Your task to perform on an android device: turn on javascript in the chrome app Image 0: 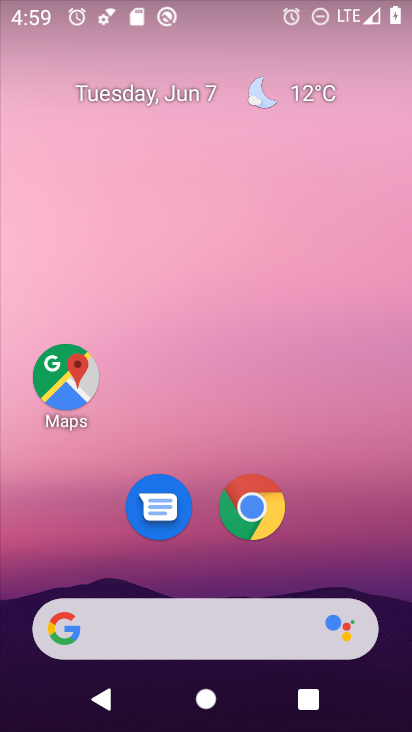
Step 0: drag from (389, 552) to (265, 10)
Your task to perform on an android device: turn on javascript in the chrome app Image 1: 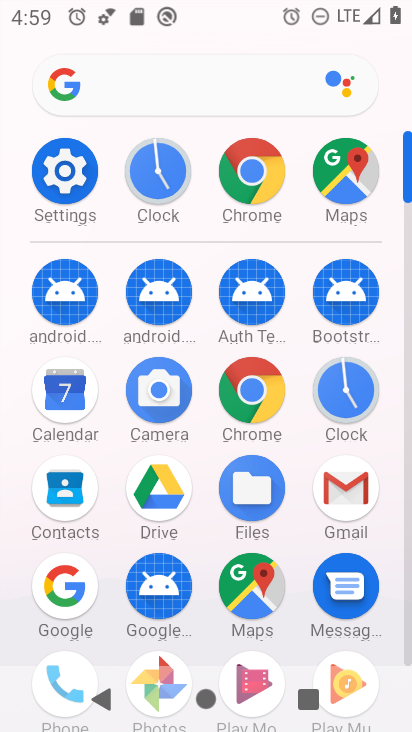
Step 1: click (246, 380)
Your task to perform on an android device: turn on javascript in the chrome app Image 2: 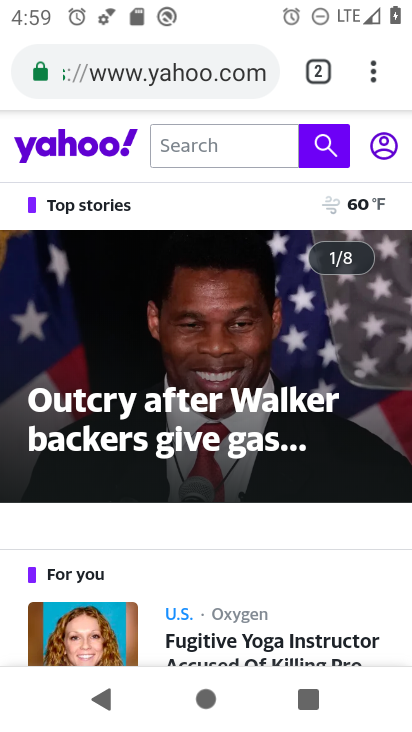
Step 2: drag from (369, 64) to (194, 497)
Your task to perform on an android device: turn on javascript in the chrome app Image 3: 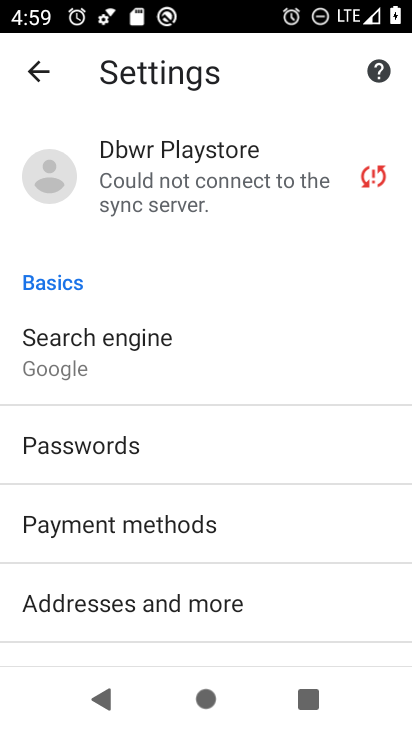
Step 3: drag from (268, 512) to (262, 194)
Your task to perform on an android device: turn on javascript in the chrome app Image 4: 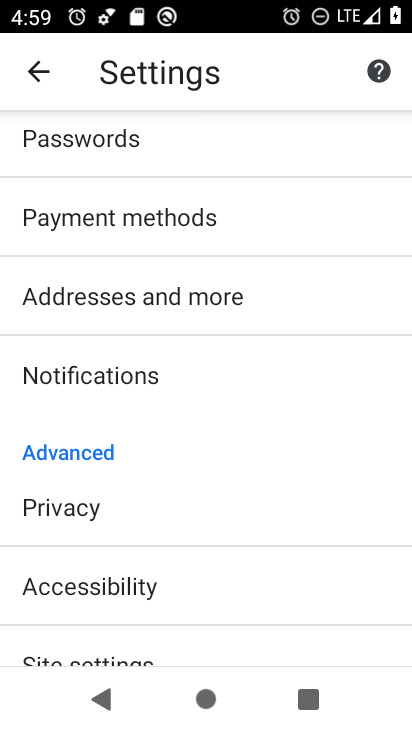
Step 4: drag from (268, 636) to (279, 285)
Your task to perform on an android device: turn on javascript in the chrome app Image 5: 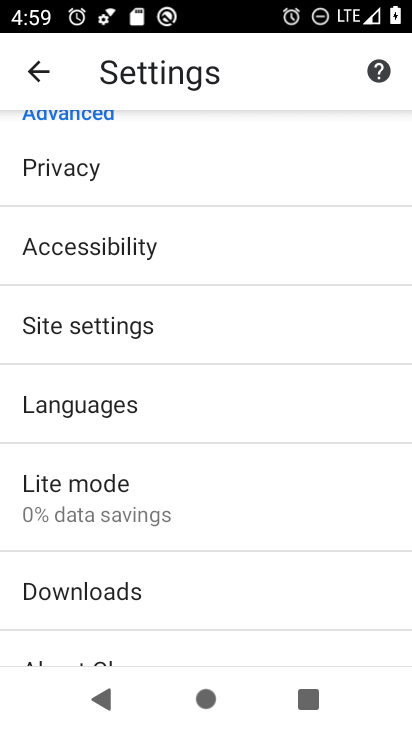
Step 5: click (112, 315)
Your task to perform on an android device: turn on javascript in the chrome app Image 6: 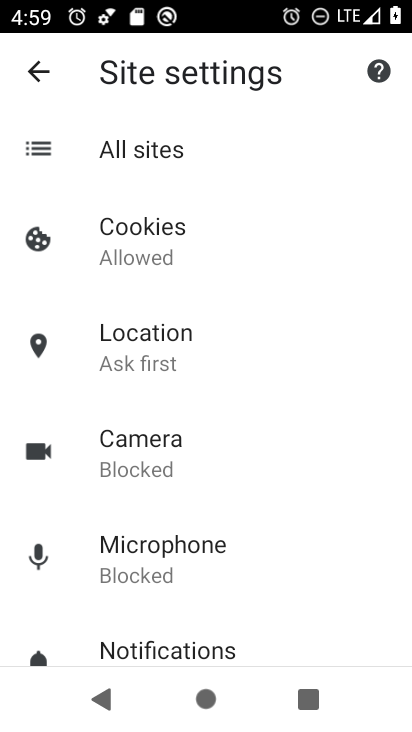
Step 6: drag from (204, 559) to (270, 246)
Your task to perform on an android device: turn on javascript in the chrome app Image 7: 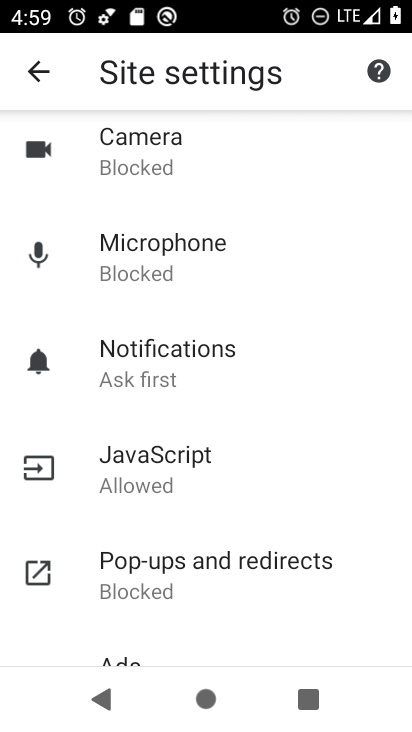
Step 7: click (170, 460)
Your task to perform on an android device: turn on javascript in the chrome app Image 8: 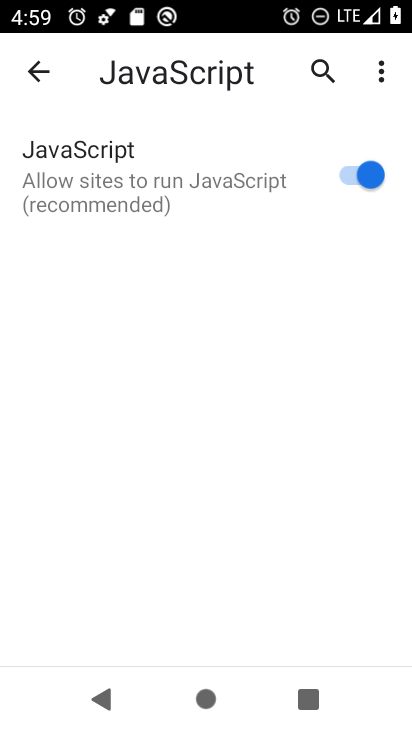
Step 8: task complete